Your task to perform on an android device: search for starred emails in the gmail app Image 0: 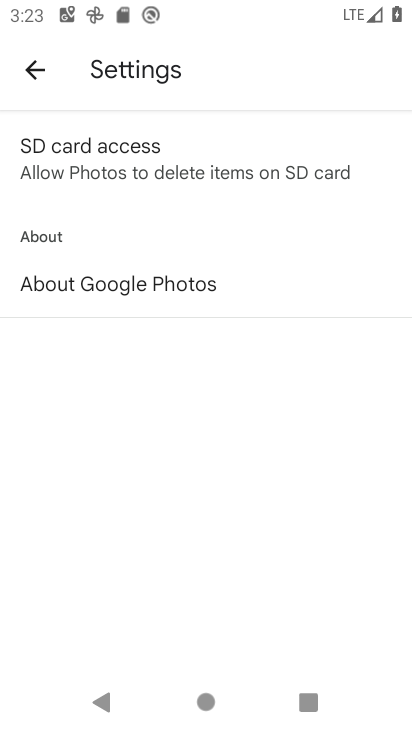
Step 0: press home button
Your task to perform on an android device: search for starred emails in the gmail app Image 1: 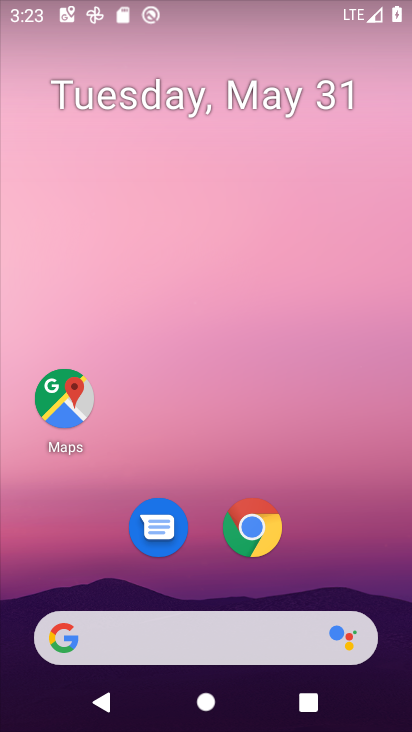
Step 1: drag from (379, 519) to (386, 4)
Your task to perform on an android device: search for starred emails in the gmail app Image 2: 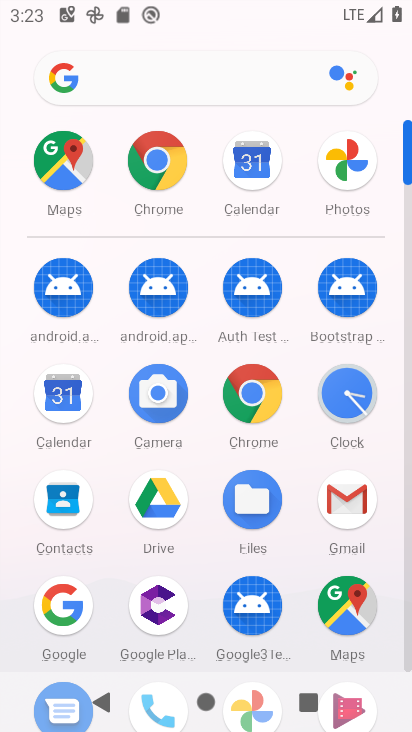
Step 2: drag from (393, 552) to (411, 270)
Your task to perform on an android device: search for starred emails in the gmail app Image 3: 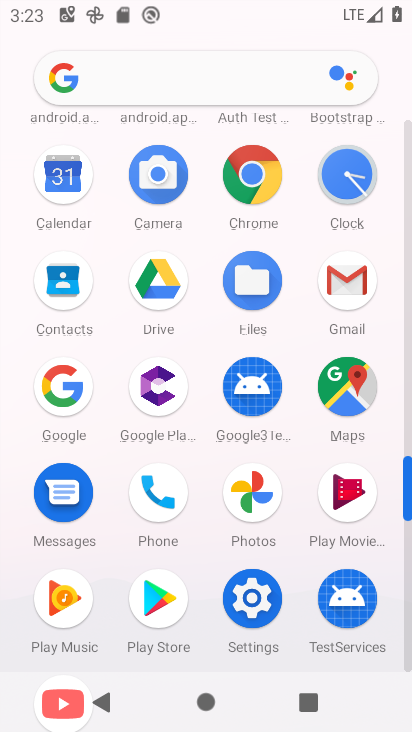
Step 3: click (364, 282)
Your task to perform on an android device: search for starred emails in the gmail app Image 4: 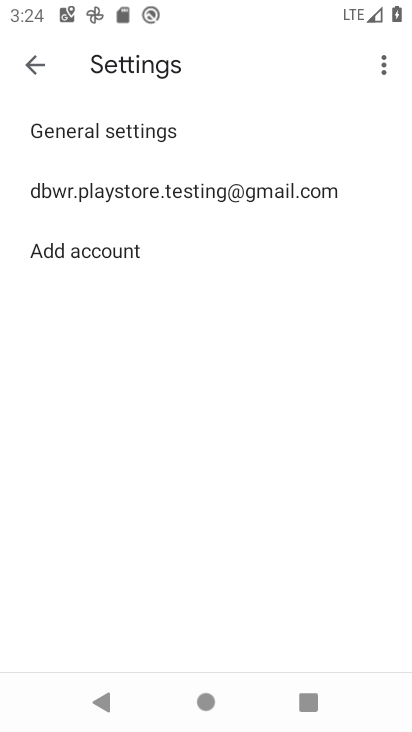
Step 4: click (45, 67)
Your task to perform on an android device: search for starred emails in the gmail app Image 5: 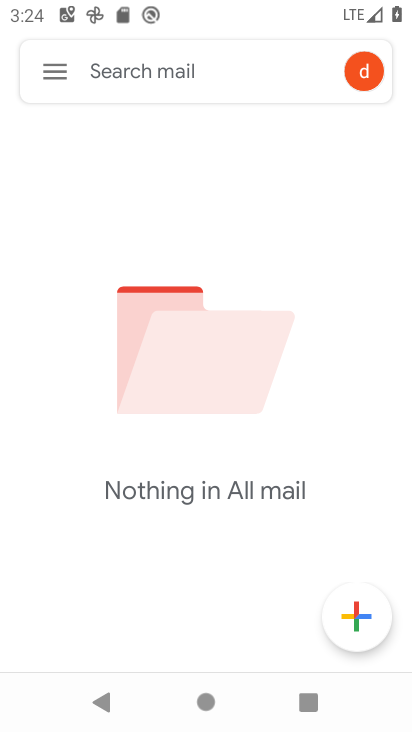
Step 5: click (45, 67)
Your task to perform on an android device: search for starred emails in the gmail app Image 6: 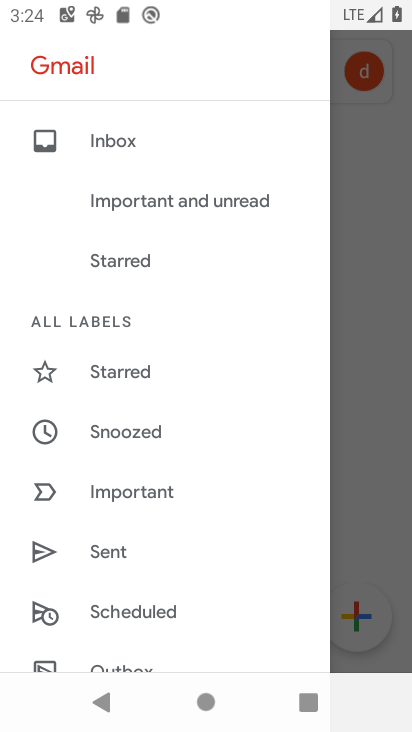
Step 6: click (136, 267)
Your task to perform on an android device: search for starred emails in the gmail app Image 7: 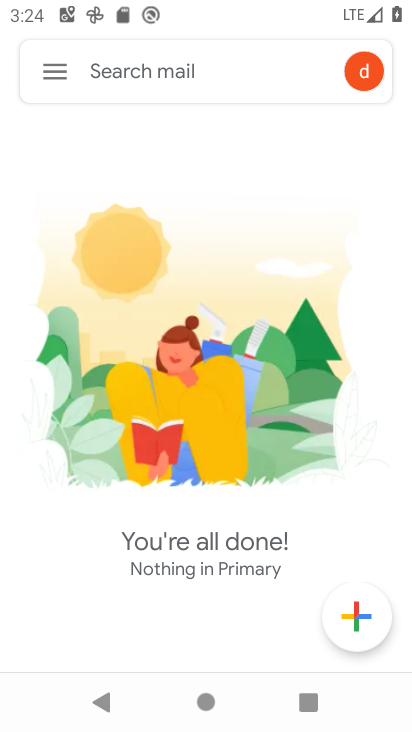
Step 7: task complete